Your task to perform on an android device: allow cookies in the chrome app Image 0: 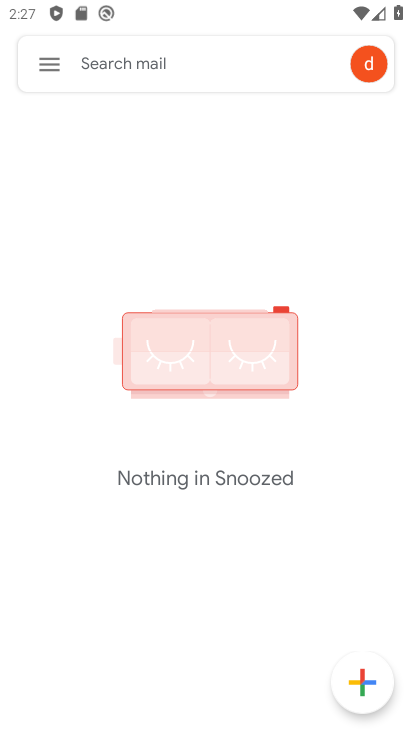
Step 0: press home button
Your task to perform on an android device: allow cookies in the chrome app Image 1: 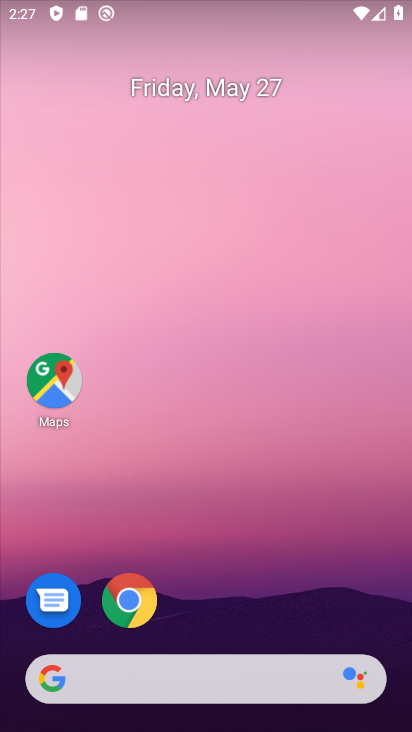
Step 1: click (131, 602)
Your task to perform on an android device: allow cookies in the chrome app Image 2: 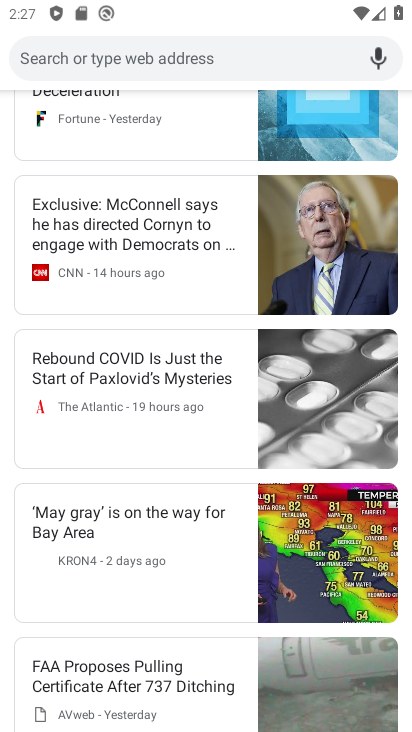
Step 2: drag from (206, 137) to (199, 621)
Your task to perform on an android device: allow cookies in the chrome app Image 3: 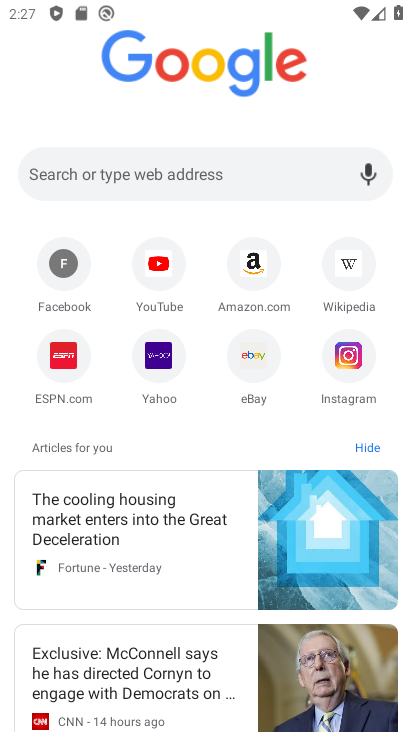
Step 3: drag from (197, 230) to (206, 588)
Your task to perform on an android device: allow cookies in the chrome app Image 4: 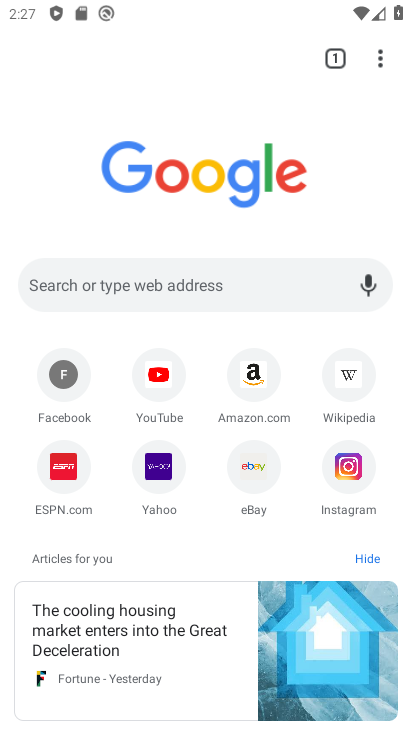
Step 4: click (381, 65)
Your task to perform on an android device: allow cookies in the chrome app Image 5: 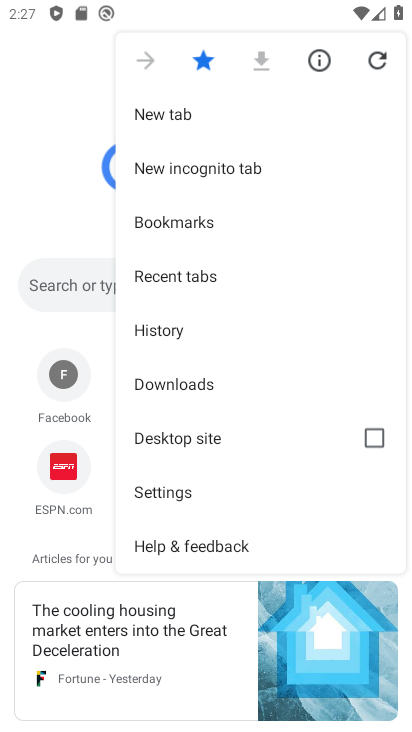
Step 5: click (172, 478)
Your task to perform on an android device: allow cookies in the chrome app Image 6: 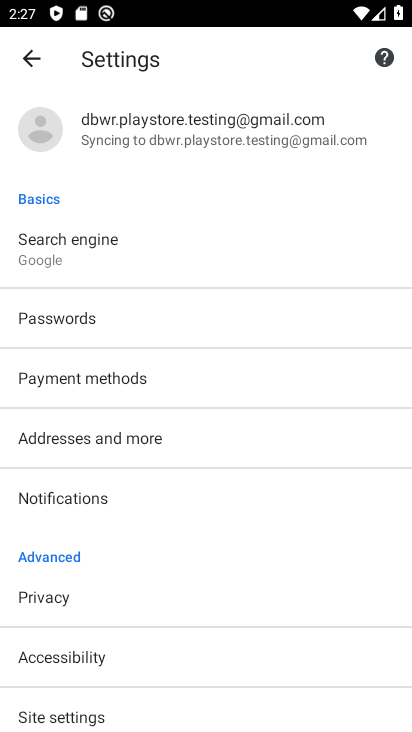
Step 6: drag from (103, 682) to (141, 333)
Your task to perform on an android device: allow cookies in the chrome app Image 7: 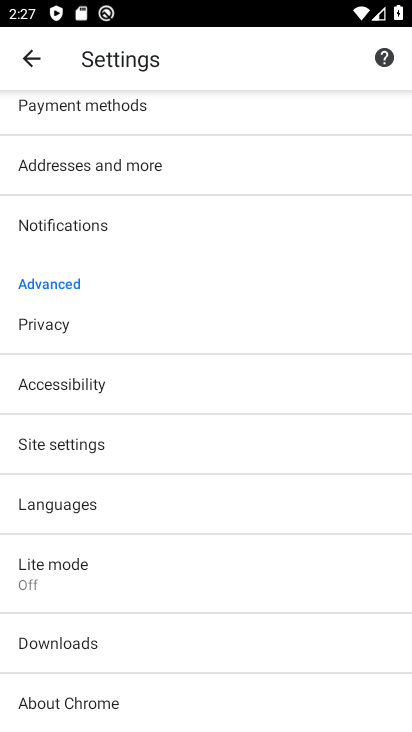
Step 7: drag from (138, 662) to (139, 478)
Your task to perform on an android device: allow cookies in the chrome app Image 8: 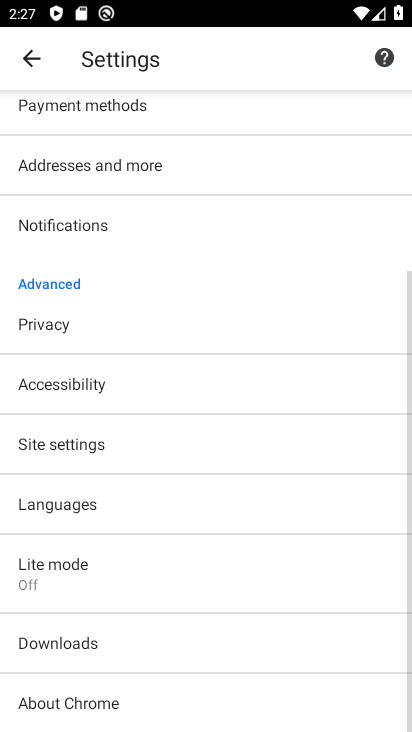
Step 8: click (129, 443)
Your task to perform on an android device: allow cookies in the chrome app Image 9: 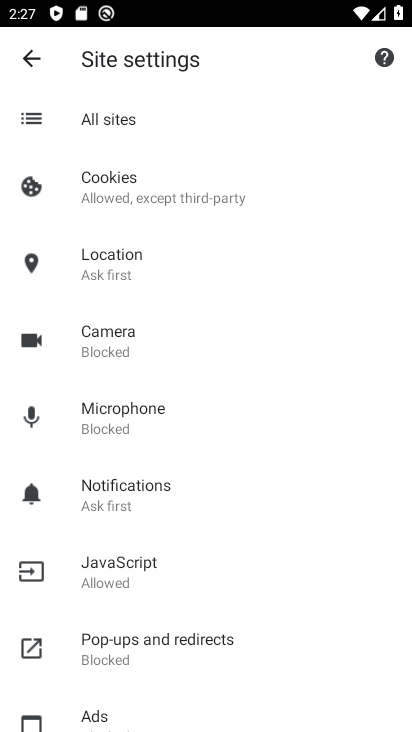
Step 9: click (108, 190)
Your task to perform on an android device: allow cookies in the chrome app Image 10: 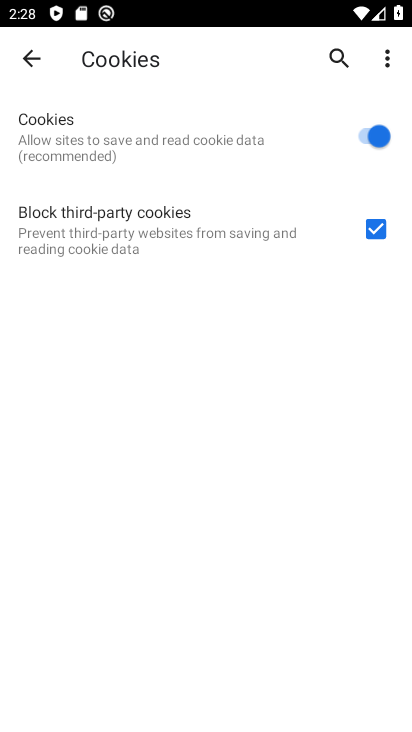
Step 10: task complete